Your task to perform on an android device: What's on my calendar today? Image 0: 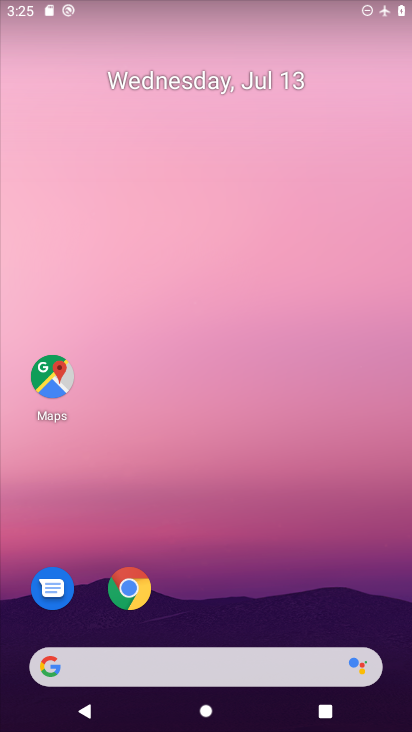
Step 0: drag from (217, 623) to (198, 99)
Your task to perform on an android device: What's on my calendar today? Image 1: 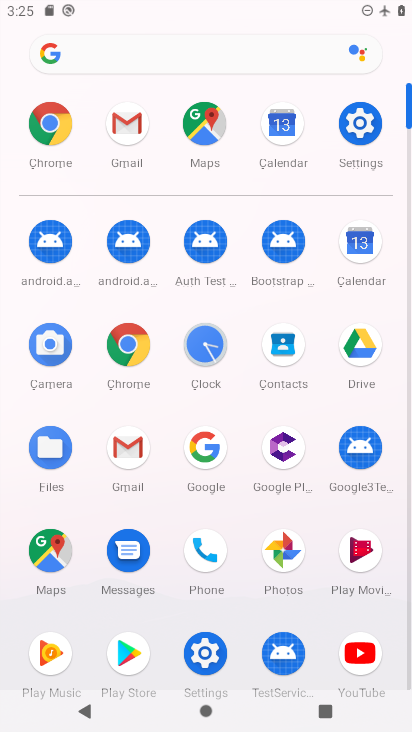
Step 1: click (363, 258)
Your task to perform on an android device: What's on my calendar today? Image 2: 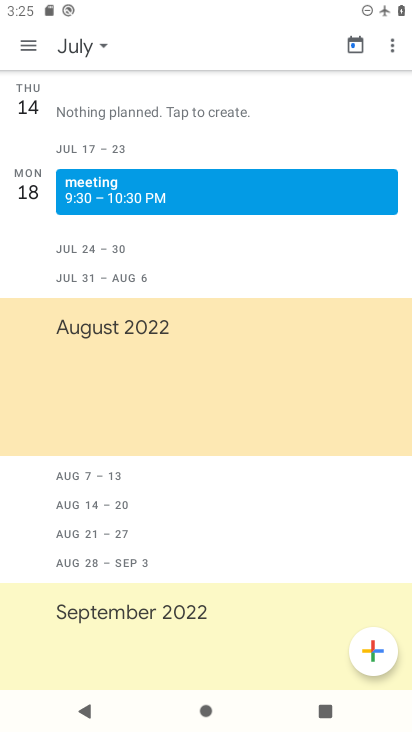
Step 2: click (17, 53)
Your task to perform on an android device: What's on my calendar today? Image 3: 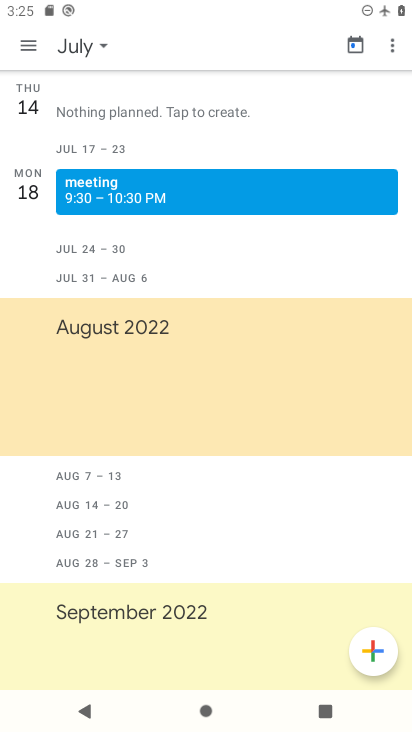
Step 3: click (20, 42)
Your task to perform on an android device: What's on my calendar today? Image 4: 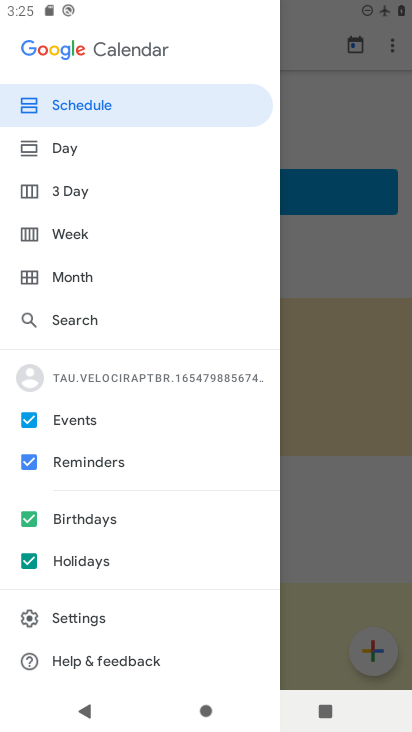
Step 4: click (84, 227)
Your task to perform on an android device: What's on my calendar today? Image 5: 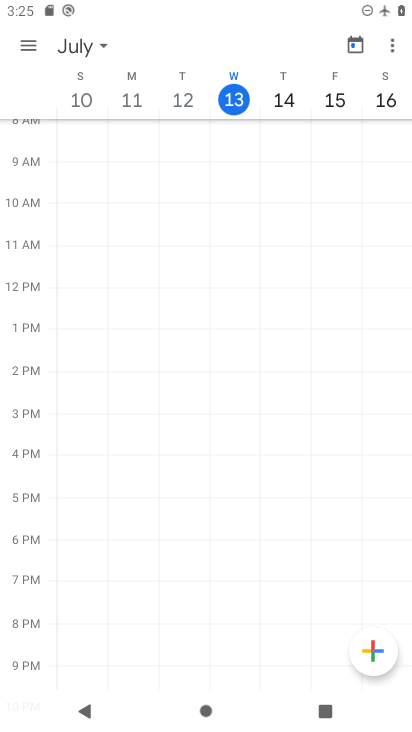
Step 5: click (239, 100)
Your task to perform on an android device: What's on my calendar today? Image 6: 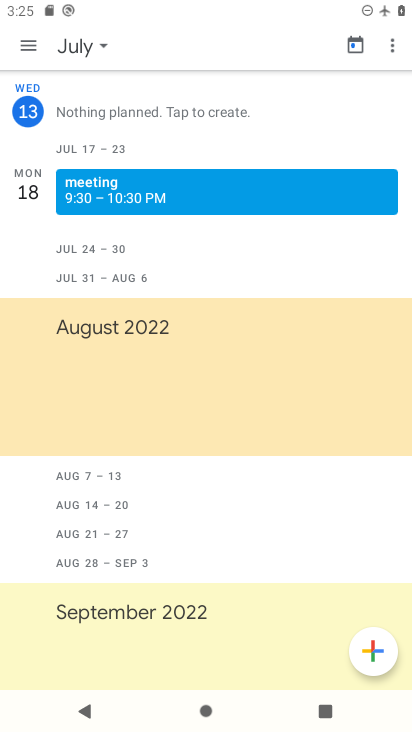
Step 6: task complete